Your task to perform on an android device: change timer sound Image 0: 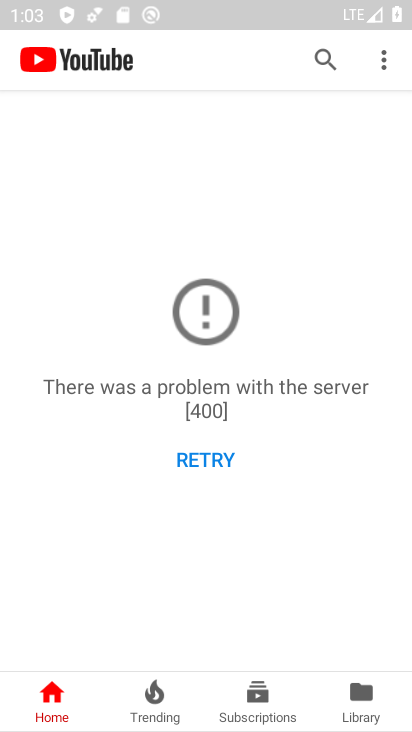
Step 0: press home button
Your task to perform on an android device: change timer sound Image 1: 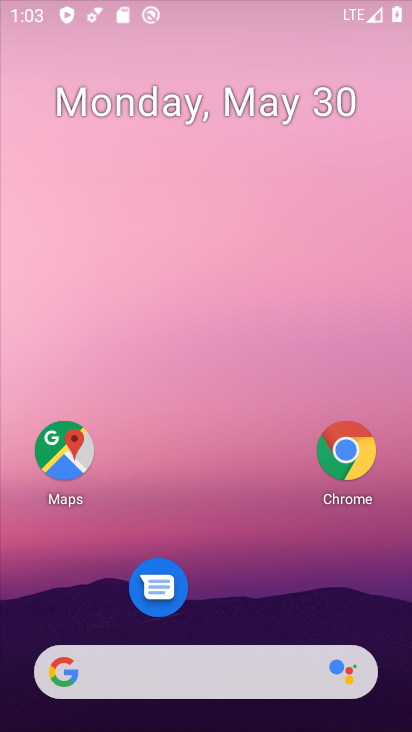
Step 1: drag from (267, 621) to (289, 77)
Your task to perform on an android device: change timer sound Image 2: 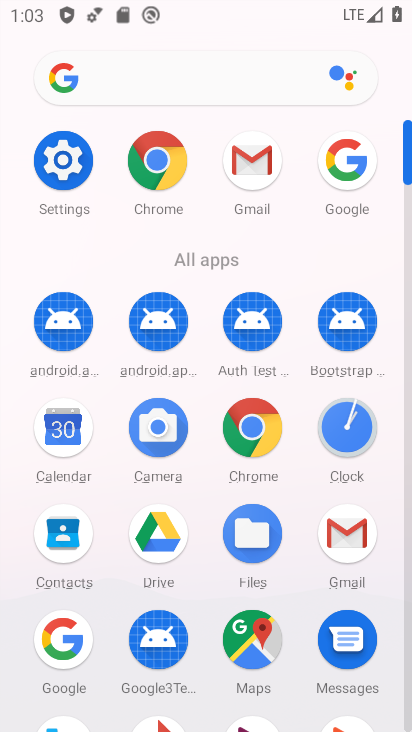
Step 2: click (356, 435)
Your task to perform on an android device: change timer sound Image 3: 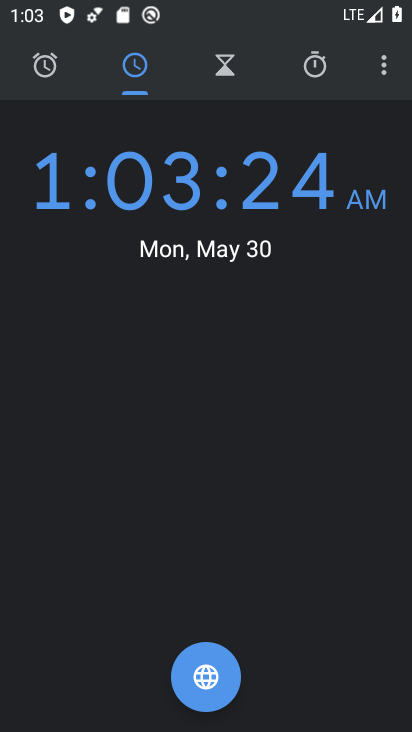
Step 3: click (381, 53)
Your task to perform on an android device: change timer sound Image 4: 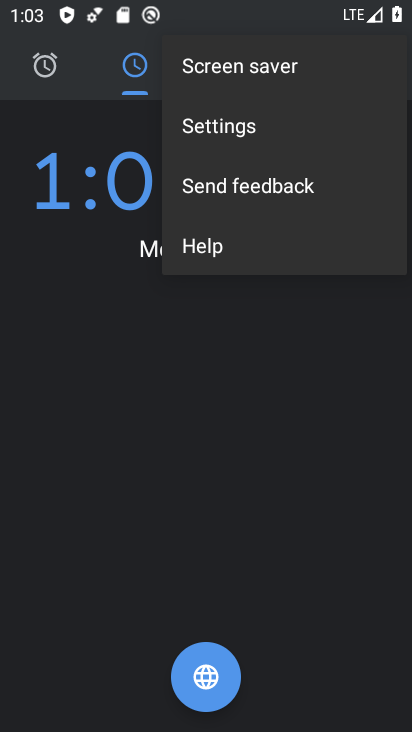
Step 4: click (238, 152)
Your task to perform on an android device: change timer sound Image 5: 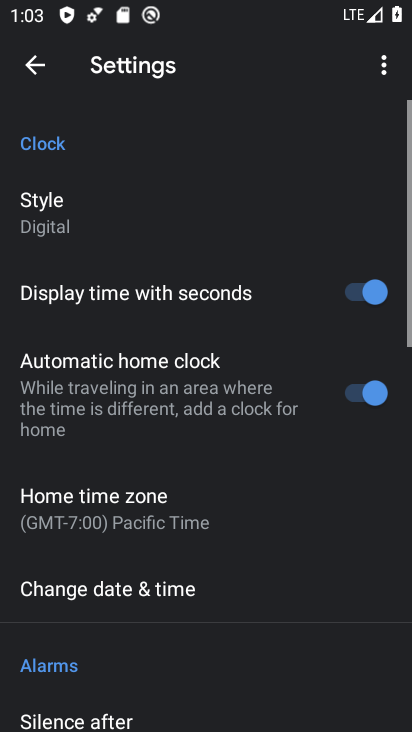
Step 5: drag from (157, 608) to (199, 82)
Your task to perform on an android device: change timer sound Image 6: 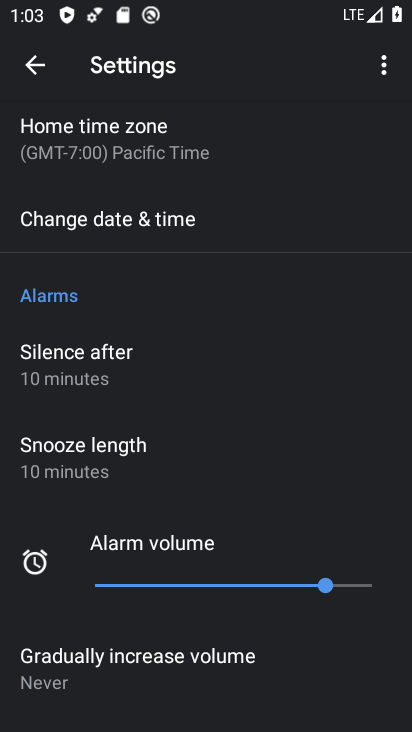
Step 6: drag from (129, 660) to (157, 114)
Your task to perform on an android device: change timer sound Image 7: 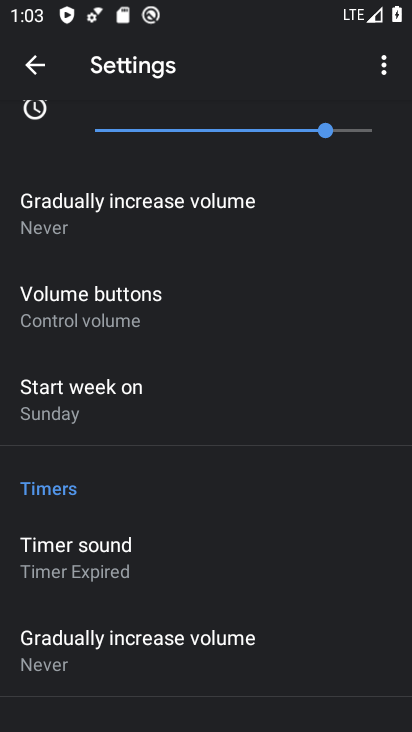
Step 7: click (78, 570)
Your task to perform on an android device: change timer sound Image 8: 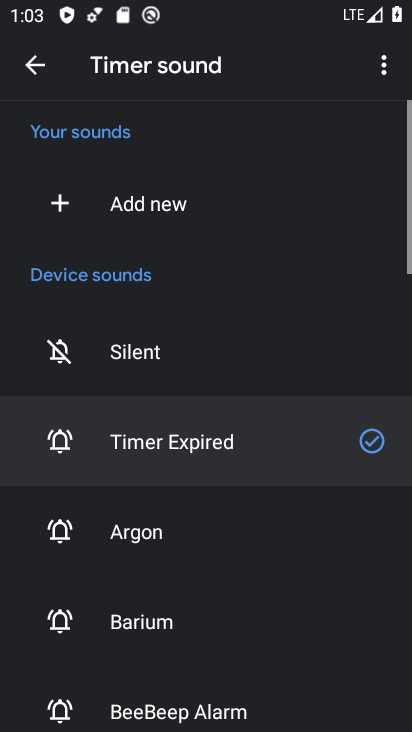
Step 8: click (148, 515)
Your task to perform on an android device: change timer sound Image 9: 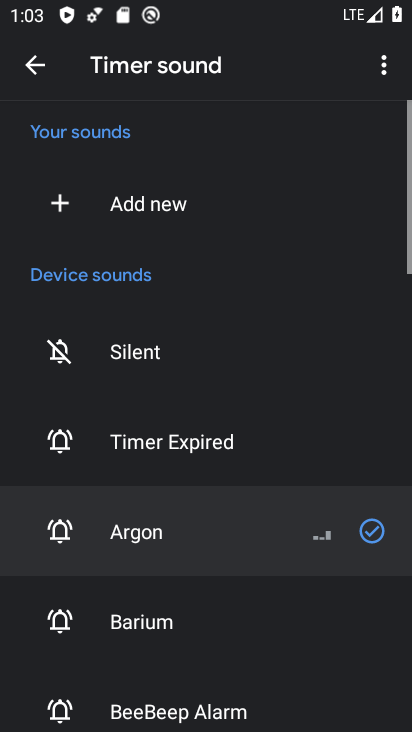
Step 9: task complete